Your task to perform on an android device: turn on priority inbox in the gmail app Image 0: 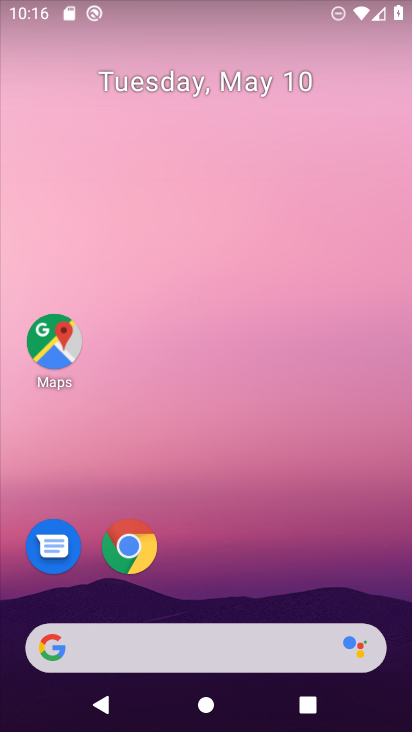
Step 0: drag from (279, 547) to (288, 5)
Your task to perform on an android device: turn on priority inbox in the gmail app Image 1: 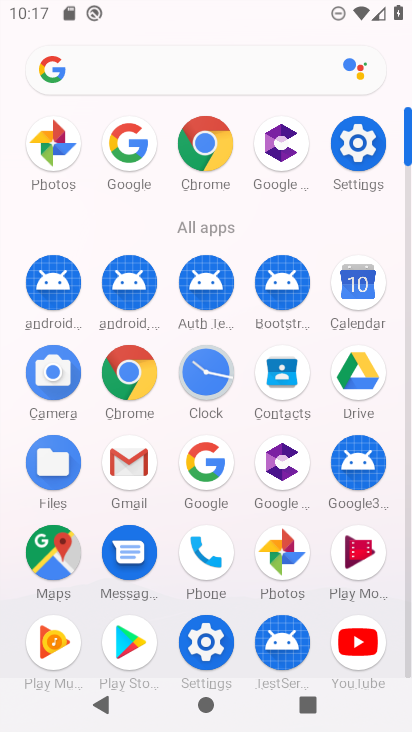
Step 1: click (142, 454)
Your task to perform on an android device: turn on priority inbox in the gmail app Image 2: 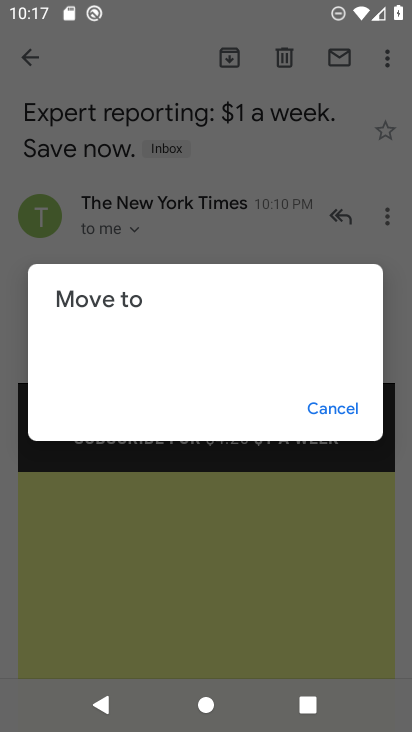
Step 2: click (330, 407)
Your task to perform on an android device: turn on priority inbox in the gmail app Image 3: 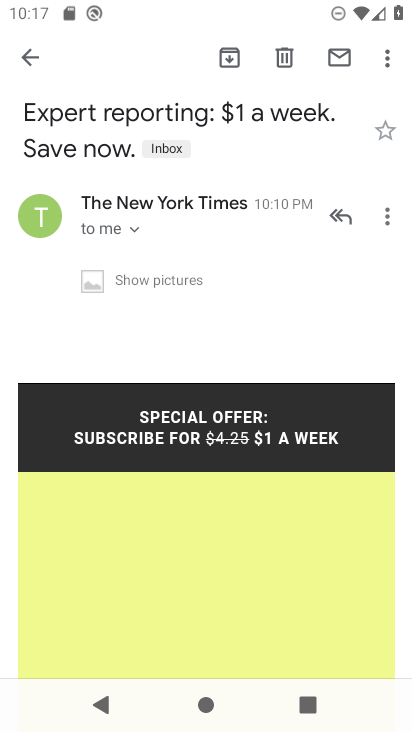
Step 3: click (27, 55)
Your task to perform on an android device: turn on priority inbox in the gmail app Image 4: 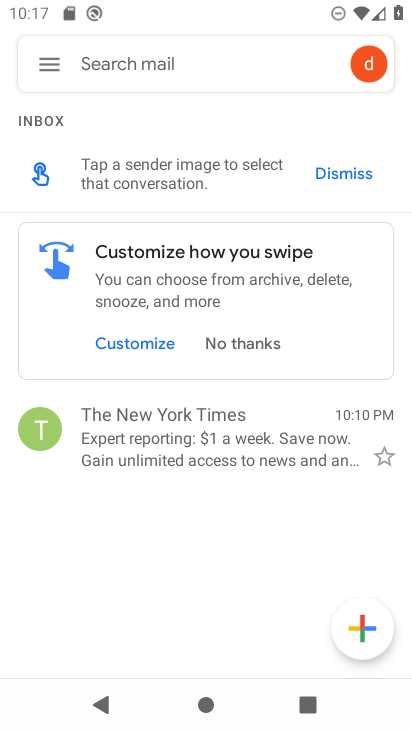
Step 4: click (41, 58)
Your task to perform on an android device: turn on priority inbox in the gmail app Image 5: 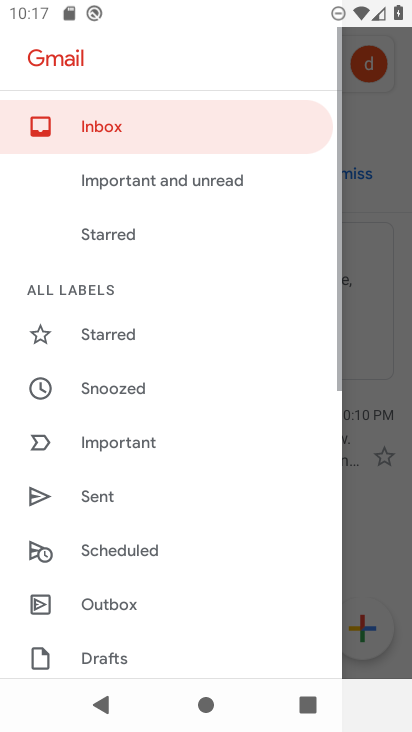
Step 5: drag from (103, 610) to (184, 212)
Your task to perform on an android device: turn on priority inbox in the gmail app Image 6: 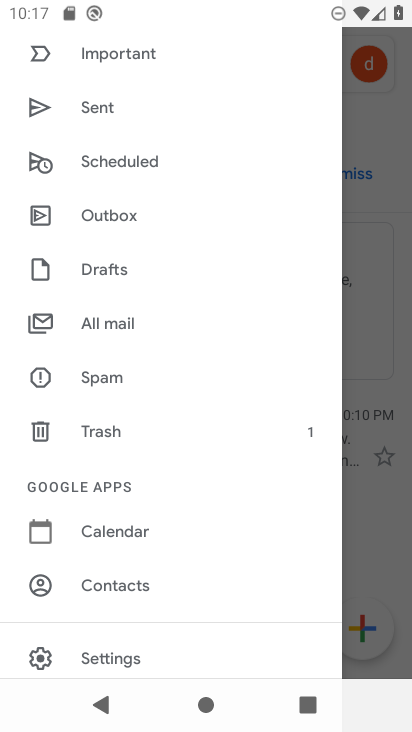
Step 6: click (99, 656)
Your task to perform on an android device: turn on priority inbox in the gmail app Image 7: 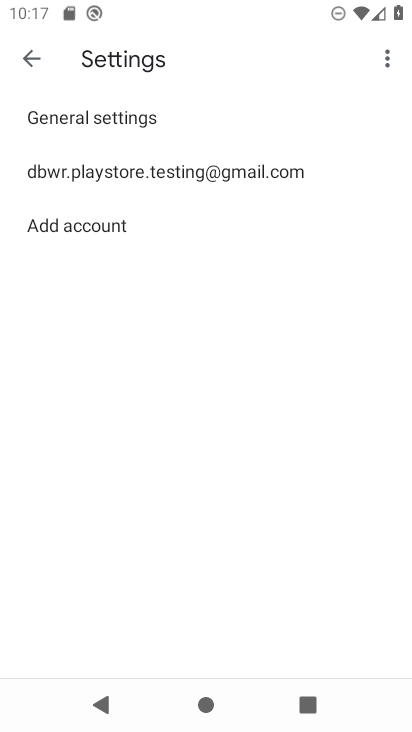
Step 7: click (184, 166)
Your task to perform on an android device: turn on priority inbox in the gmail app Image 8: 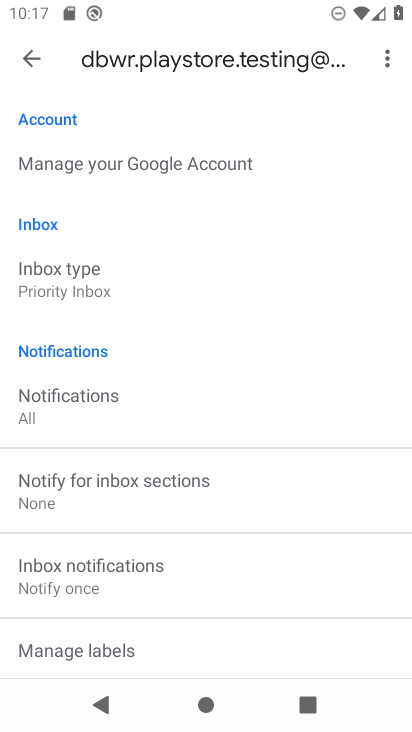
Step 8: click (55, 288)
Your task to perform on an android device: turn on priority inbox in the gmail app Image 9: 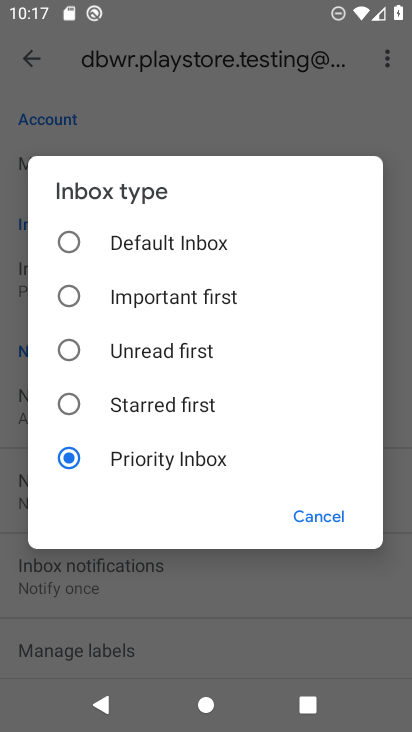
Step 9: task complete